Your task to perform on an android device: all mails in gmail Image 0: 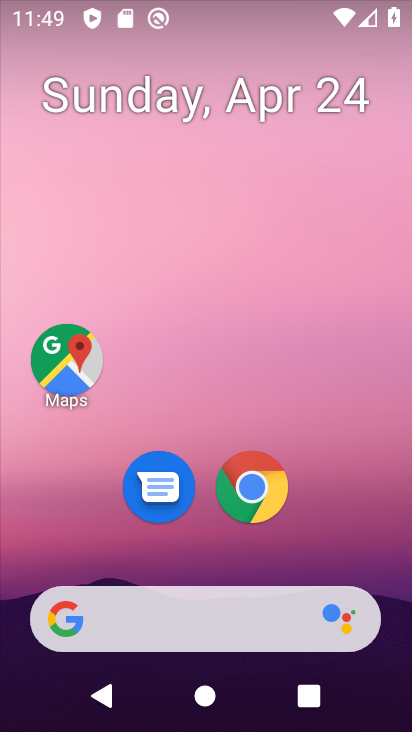
Step 0: drag from (394, 611) to (324, 85)
Your task to perform on an android device: all mails in gmail Image 1: 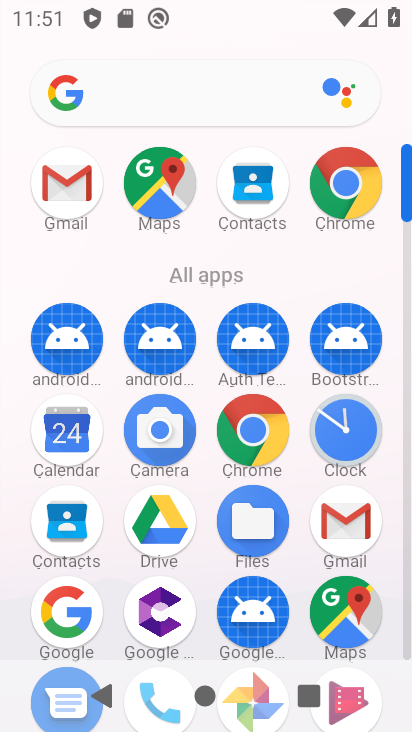
Step 1: click (356, 516)
Your task to perform on an android device: all mails in gmail Image 2: 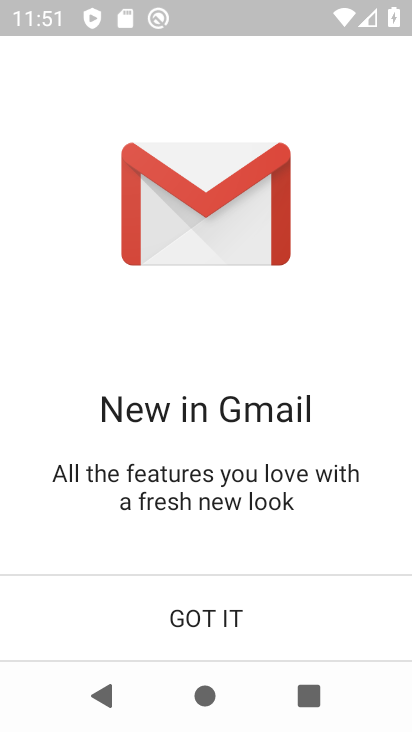
Step 2: click (205, 617)
Your task to perform on an android device: all mails in gmail Image 3: 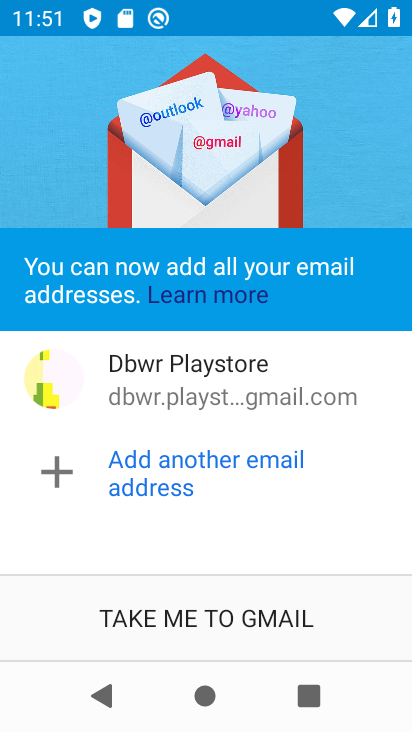
Step 3: click (205, 617)
Your task to perform on an android device: all mails in gmail Image 4: 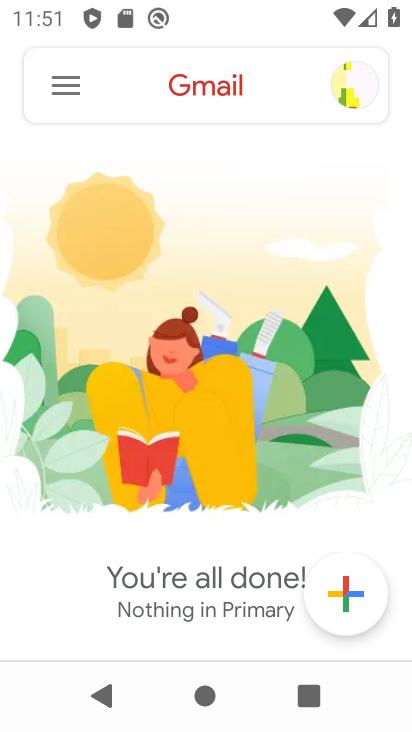
Step 4: click (54, 88)
Your task to perform on an android device: all mails in gmail Image 5: 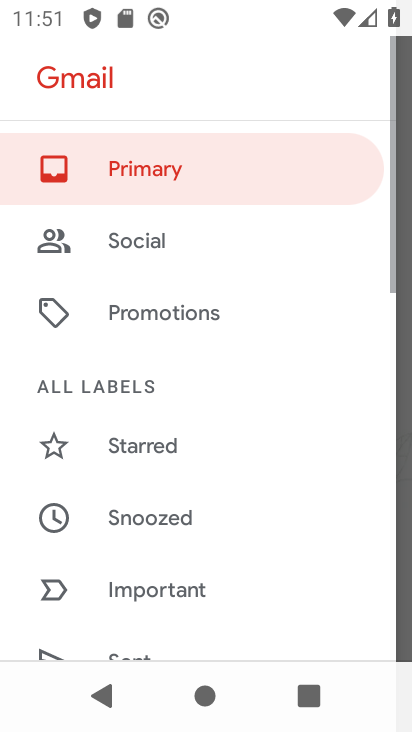
Step 5: drag from (129, 598) to (178, 46)
Your task to perform on an android device: all mails in gmail Image 6: 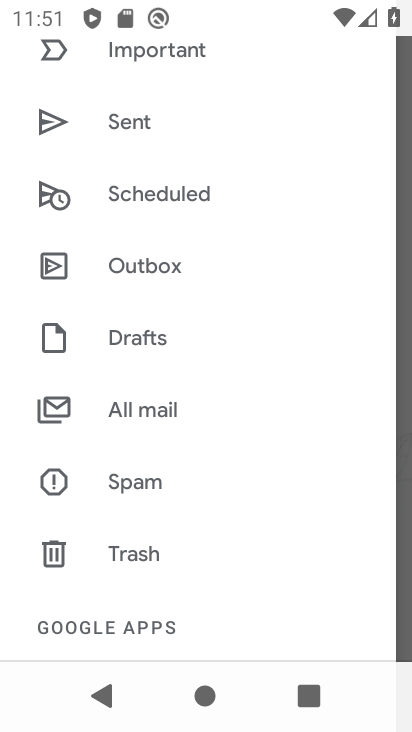
Step 6: click (187, 425)
Your task to perform on an android device: all mails in gmail Image 7: 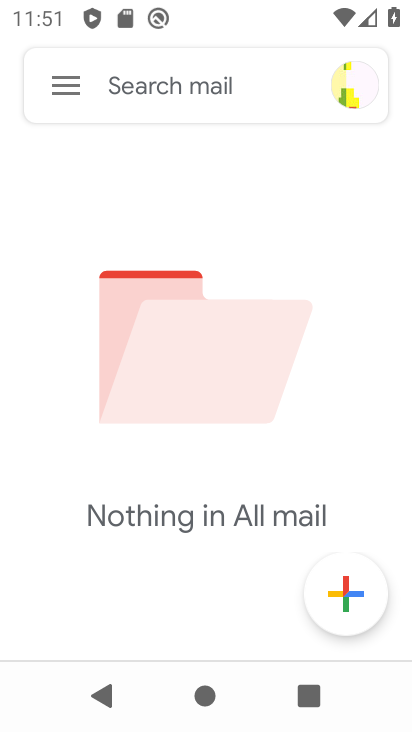
Step 7: task complete